Your task to perform on an android device: Show me productivity apps on the Play Store Image 0: 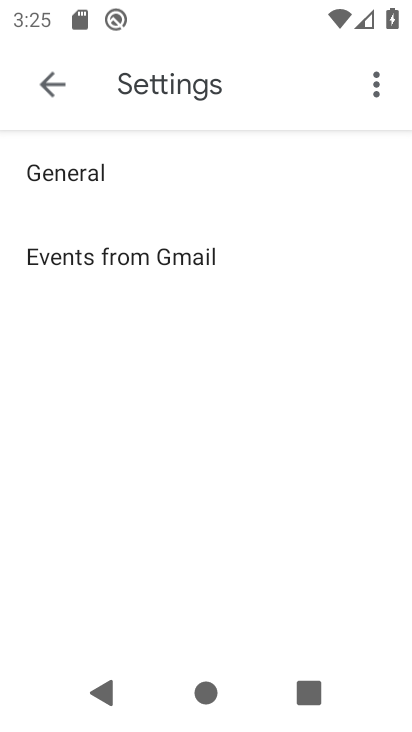
Step 0: press home button
Your task to perform on an android device: Show me productivity apps on the Play Store Image 1: 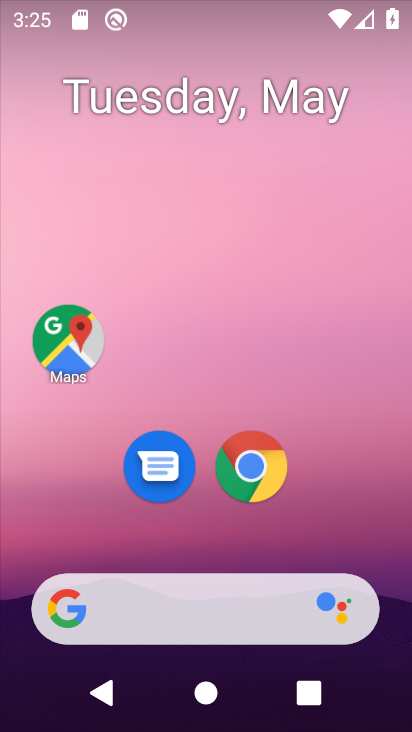
Step 1: drag from (353, 525) to (347, 104)
Your task to perform on an android device: Show me productivity apps on the Play Store Image 2: 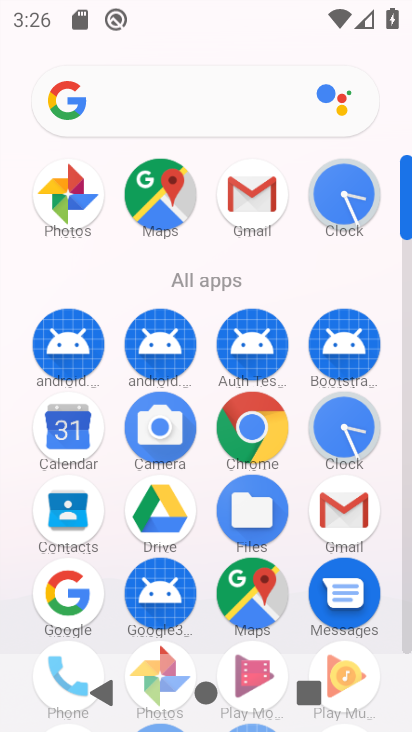
Step 2: drag from (282, 233) to (312, 64)
Your task to perform on an android device: Show me productivity apps on the Play Store Image 3: 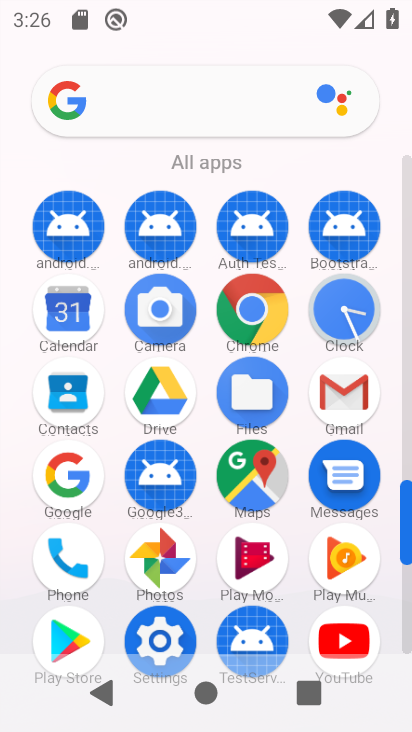
Step 3: click (76, 640)
Your task to perform on an android device: Show me productivity apps on the Play Store Image 4: 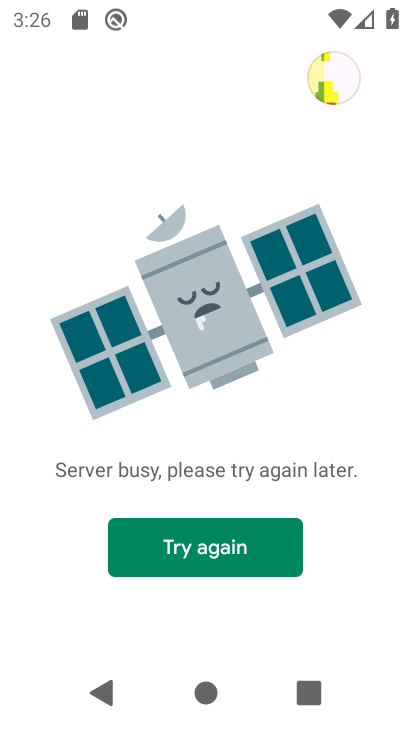
Step 4: press home button
Your task to perform on an android device: Show me productivity apps on the Play Store Image 5: 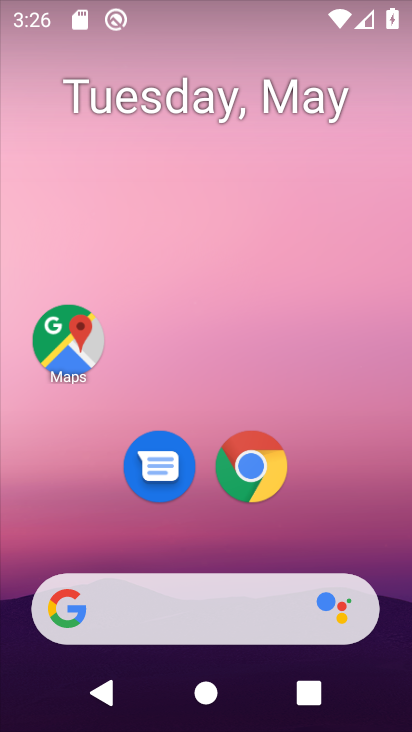
Step 5: drag from (205, 538) to (351, 49)
Your task to perform on an android device: Show me productivity apps on the Play Store Image 6: 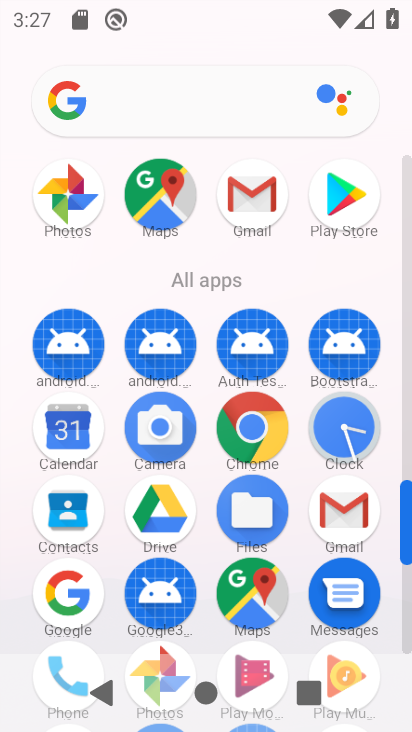
Step 6: click (353, 199)
Your task to perform on an android device: Show me productivity apps on the Play Store Image 7: 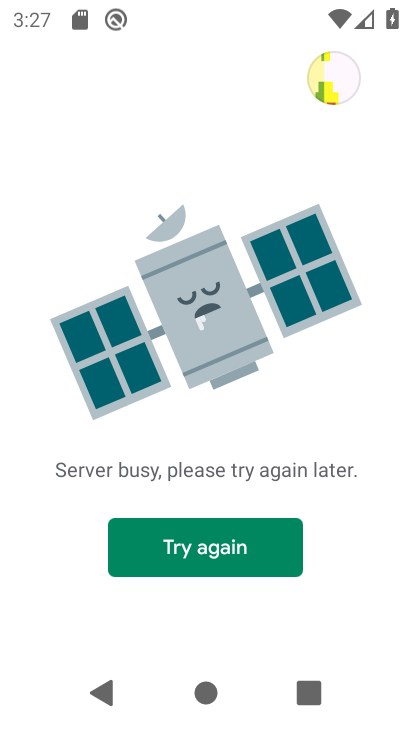
Step 7: task complete